Your task to perform on an android device: delete browsing data in the chrome app Image 0: 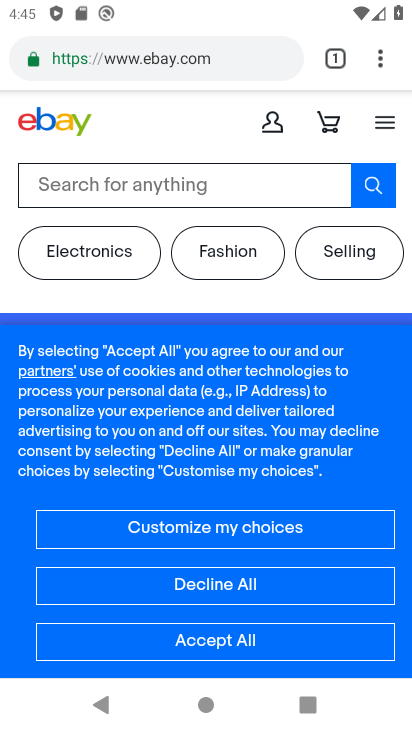
Step 0: click (381, 54)
Your task to perform on an android device: delete browsing data in the chrome app Image 1: 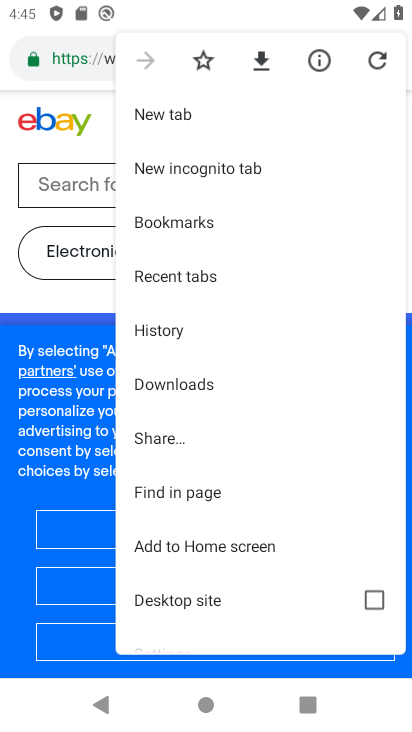
Step 1: click (173, 332)
Your task to perform on an android device: delete browsing data in the chrome app Image 2: 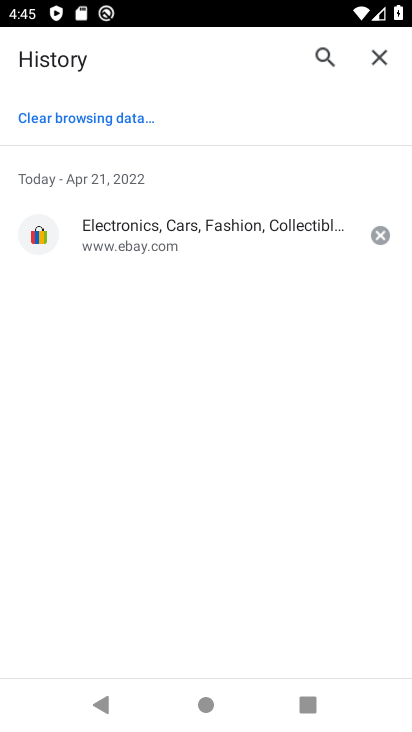
Step 2: click (127, 119)
Your task to perform on an android device: delete browsing data in the chrome app Image 3: 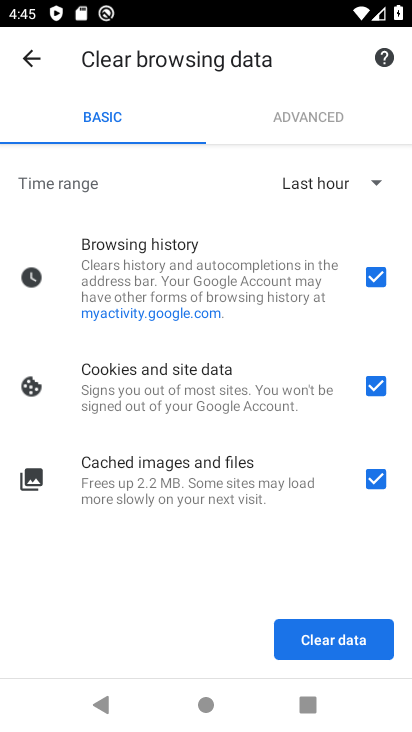
Step 3: click (334, 631)
Your task to perform on an android device: delete browsing data in the chrome app Image 4: 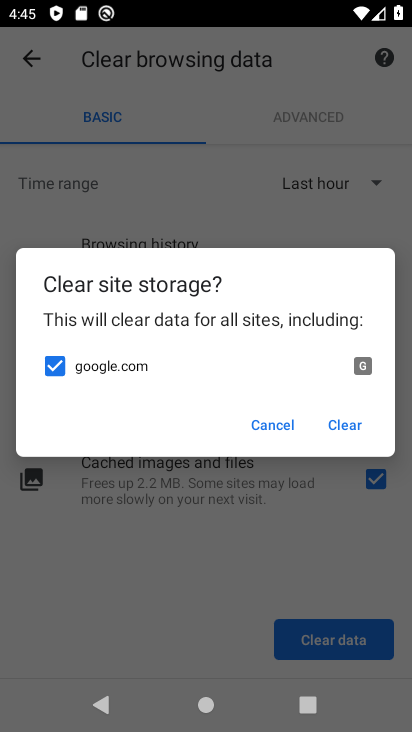
Step 4: click (340, 424)
Your task to perform on an android device: delete browsing data in the chrome app Image 5: 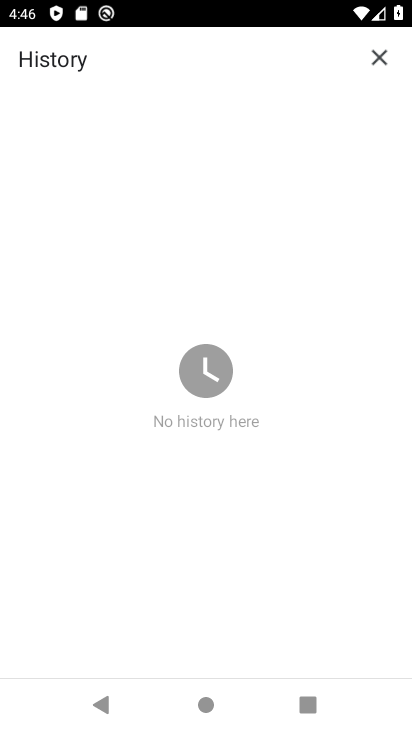
Step 5: task complete